Your task to perform on an android device: toggle show notifications on the lock screen Image 0: 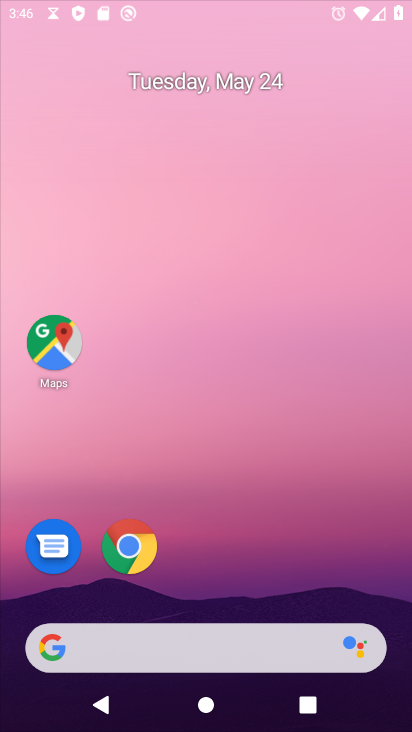
Step 0: drag from (247, 659) to (117, 80)
Your task to perform on an android device: toggle show notifications on the lock screen Image 1: 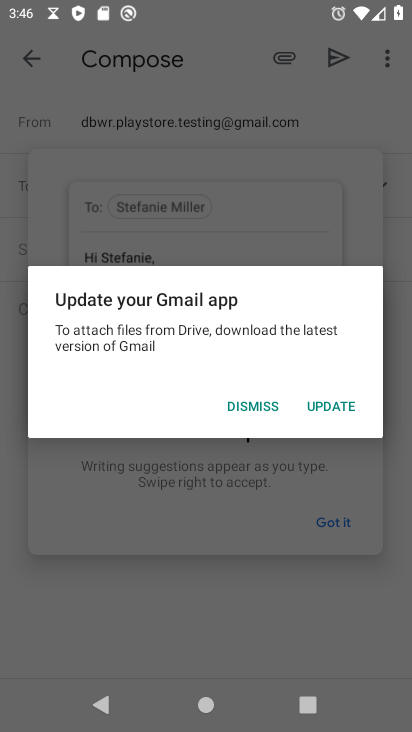
Step 1: click (247, 413)
Your task to perform on an android device: toggle show notifications on the lock screen Image 2: 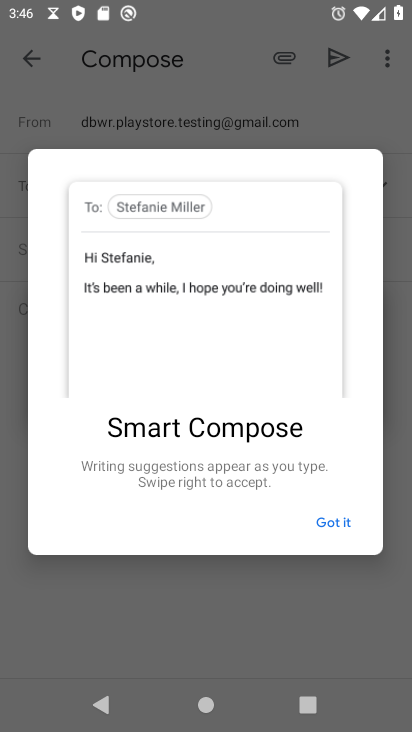
Step 2: click (338, 518)
Your task to perform on an android device: toggle show notifications on the lock screen Image 3: 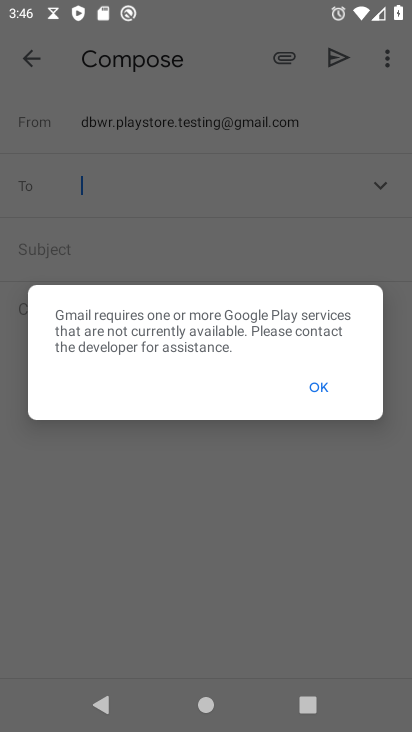
Step 3: click (325, 390)
Your task to perform on an android device: toggle show notifications on the lock screen Image 4: 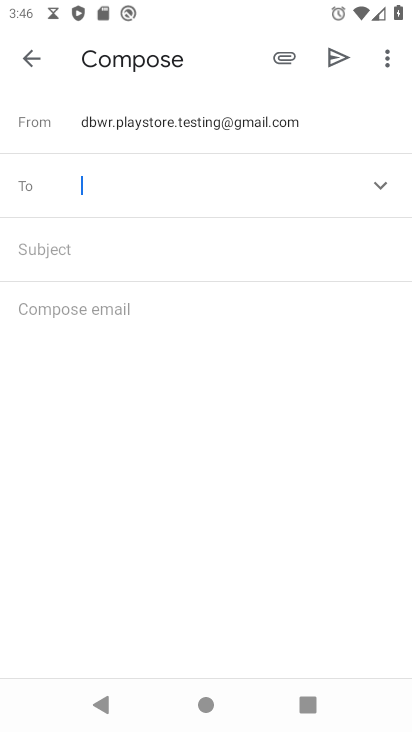
Step 4: click (34, 54)
Your task to perform on an android device: toggle show notifications on the lock screen Image 5: 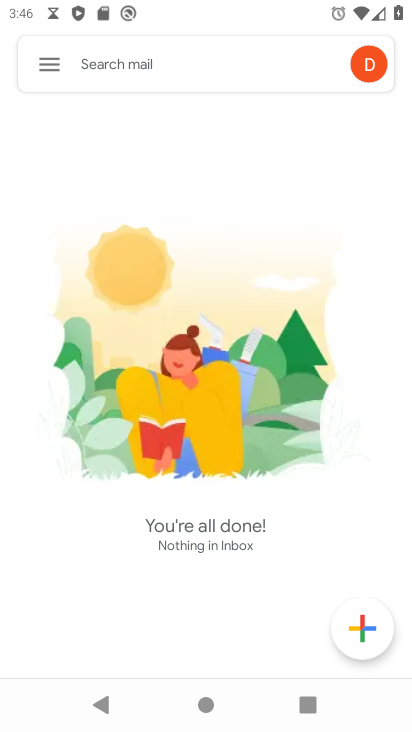
Step 5: click (282, 600)
Your task to perform on an android device: toggle show notifications on the lock screen Image 6: 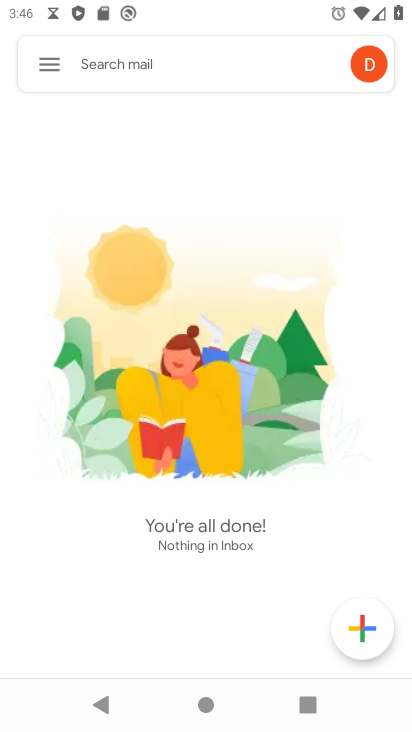
Step 6: drag from (275, 589) to (171, 336)
Your task to perform on an android device: toggle show notifications on the lock screen Image 7: 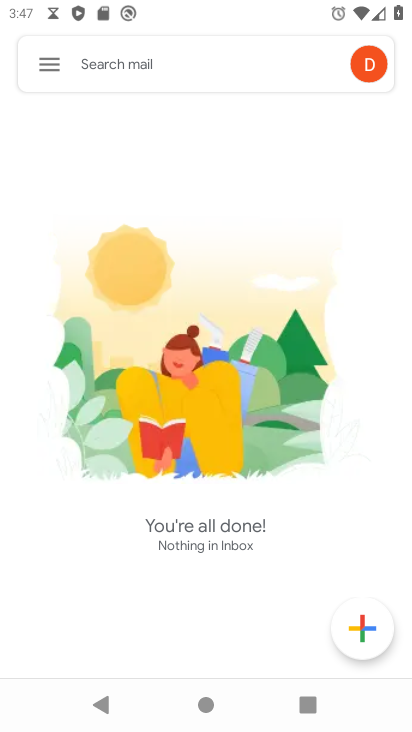
Step 7: press home button
Your task to perform on an android device: toggle show notifications on the lock screen Image 8: 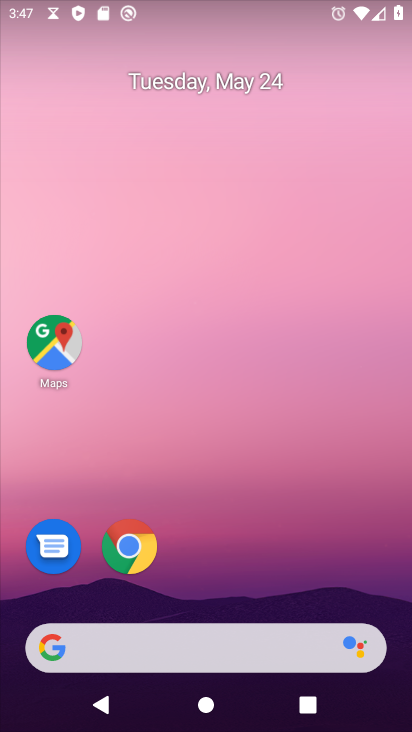
Step 8: drag from (219, 609) to (129, 47)
Your task to perform on an android device: toggle show notifications on the lock screen Image 9: 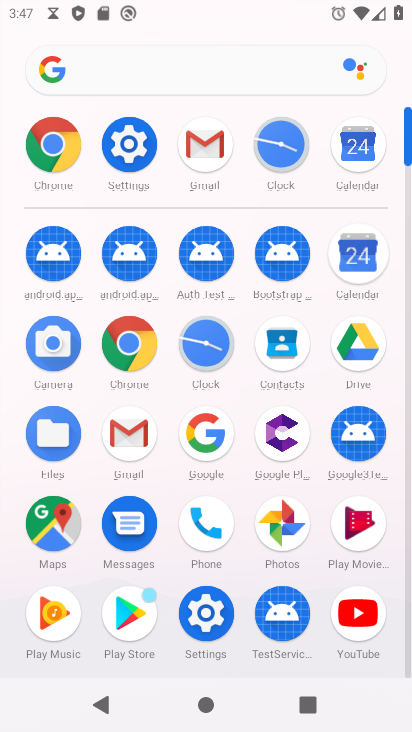
Step 9: click (355, 604)
Your task to perform on an android device: toggle show notifications on the lock screen Image 10: 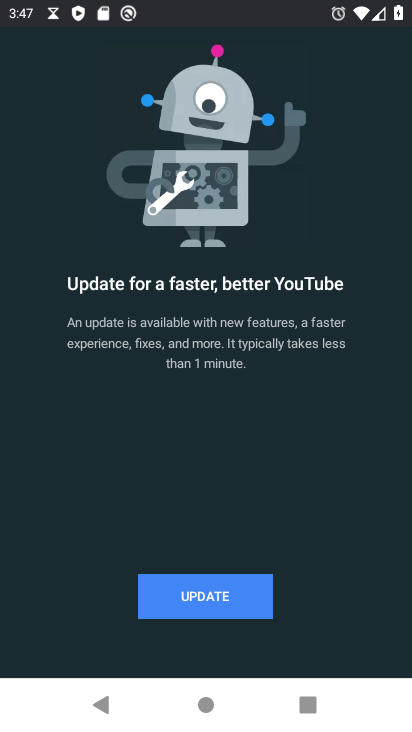
Step 10: press back button
Your task to perform on an android device: toggle show notifications on the lock screen Image 11: 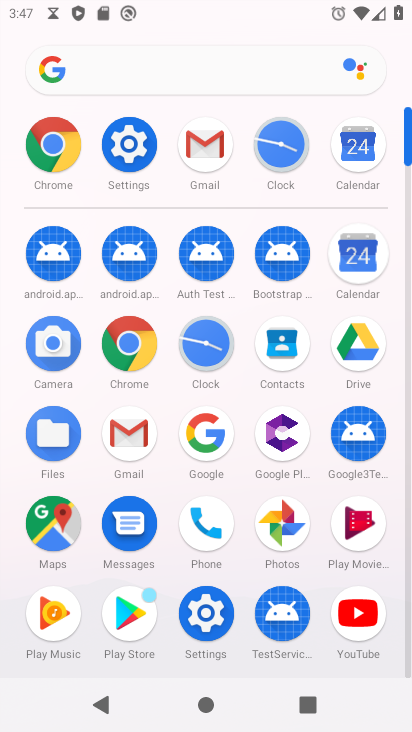
Step 11: click (120, 146)
Your task to perform on an android device: toggle show notifications on the lock screen Image 12: 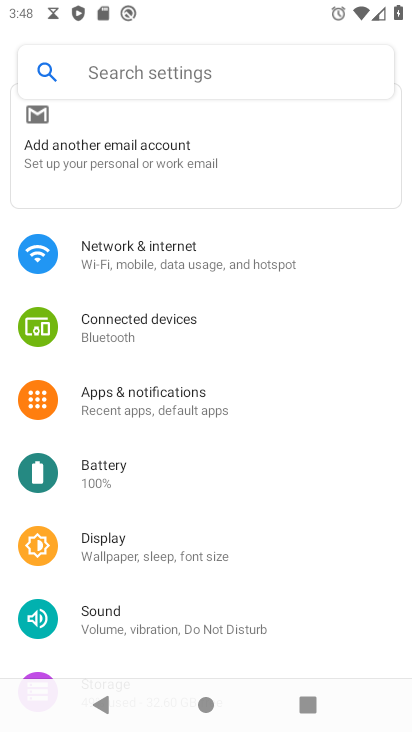
Step 12: click (153, 406)
Your task to perform on an android device: toggle show notifications on the lock screen Image 13: 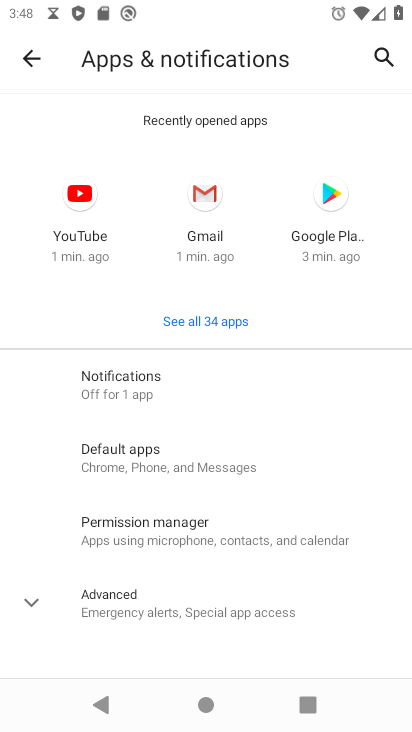
Step 13: click (121, 371)
Your task to perform on an android device: toggle show notifications on the lock screen Image 14: 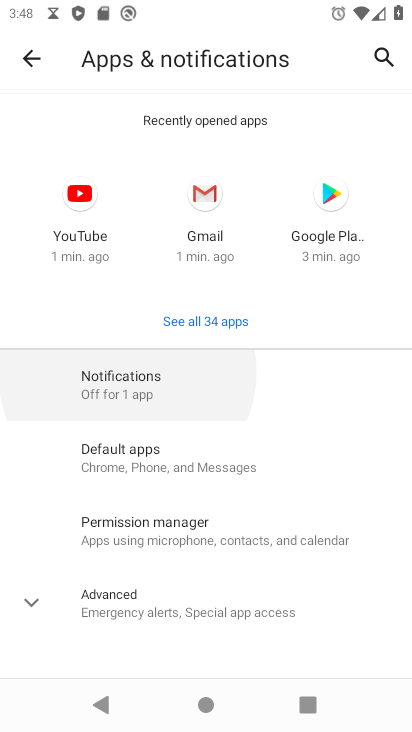
Step 14: click (120, 376)
Your task to perform on an android device: toggle show notifications on the lock screen Image 15: 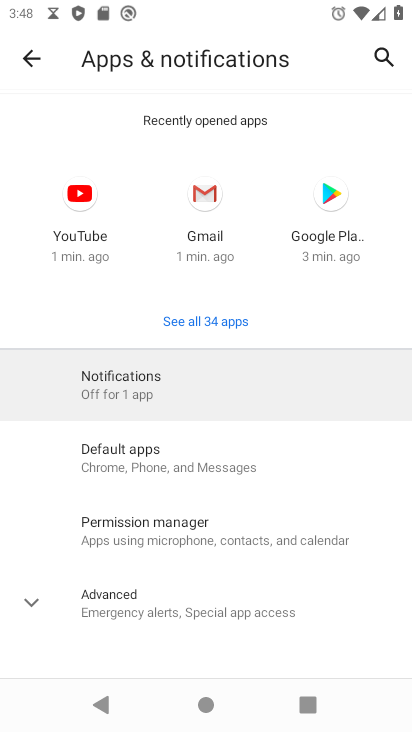
Step 15: click (118, 377)
Your task to perform on an android device: toggle show notifications on the lock screen Image 16: 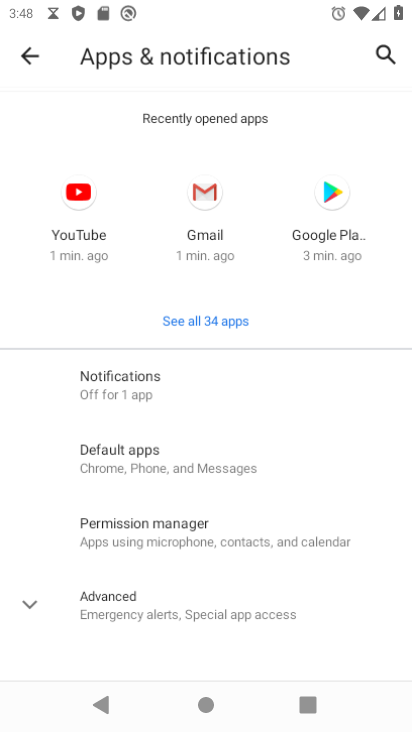
Step 16: click (118, 376)
Your task to perform on an android device: toggle show notifications on the lock screen Image 17: 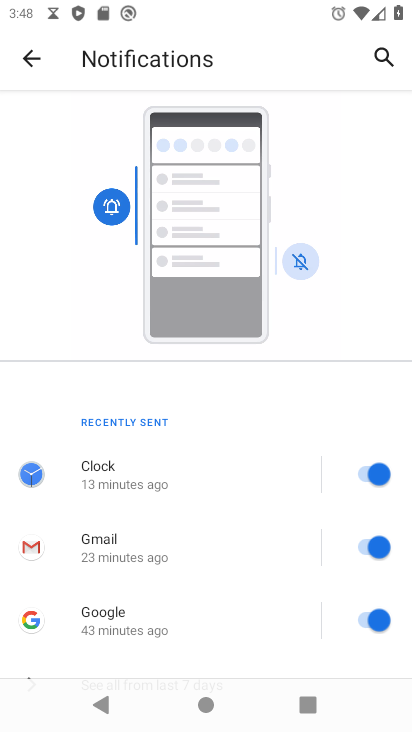
Step 17: drag from (116, 540) to (14, 225)
Your task to perform on an android device: toggle show notifications on the lock screen Image 18: 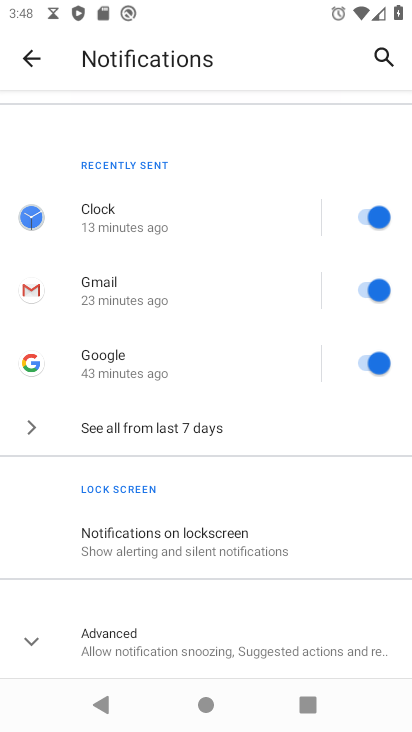
Step 18: click (141, 518)
Your task to perform on an android device: toggle show notifications on the lock screen Image 19: 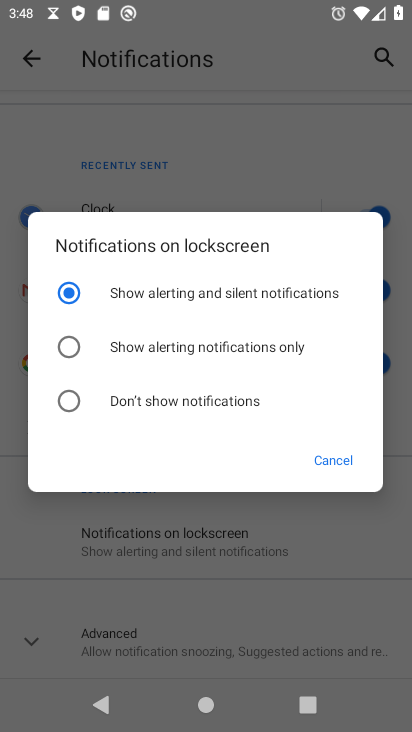
Step 19: click (303, 447)
Your task to perform on an android device: toggle show notifications on the lock screen Image 20: 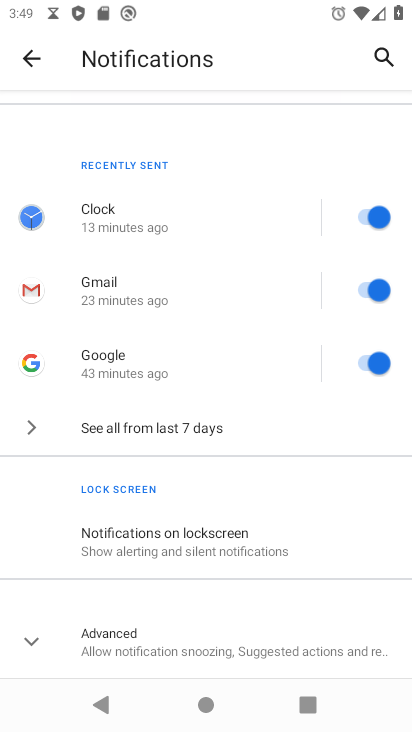
Step 20: click (171, 531)
Your task to perform on an android device: toggle show notifications on the lock screen Image 21: 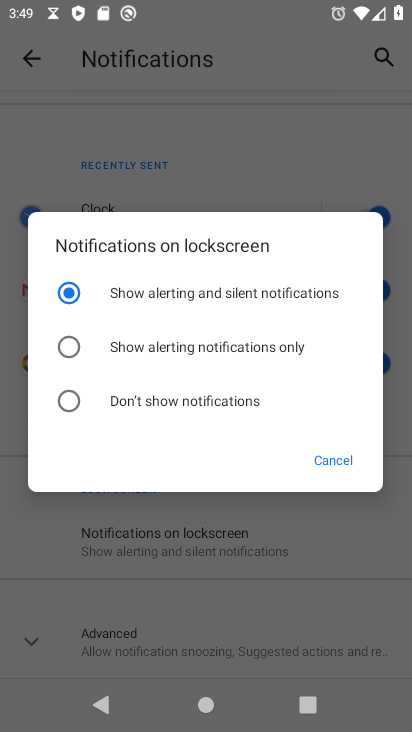
Step 21: click (333, 458)
Your task to perform on an android device: toggle show notifications on the lock screen Image 22: 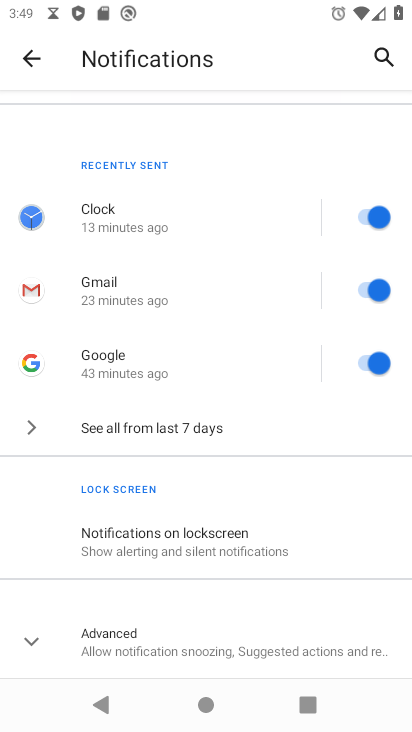
Step 22: task complete